Your task to perform on an android device: turn on sleep mode Image 0: 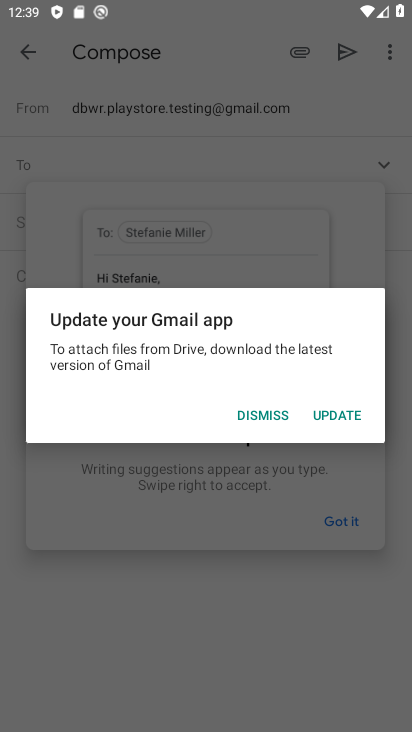
Step 0: press home button
Your task to perform on an android device: turn on sleep mode Image 1: 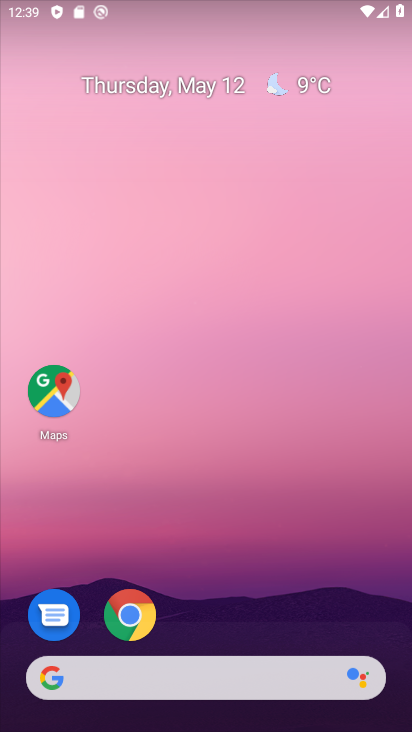
Step 1: drag from (218, 659) to (162, 24)
Your task to perform on an android device: turn on sleep mode Image 2: 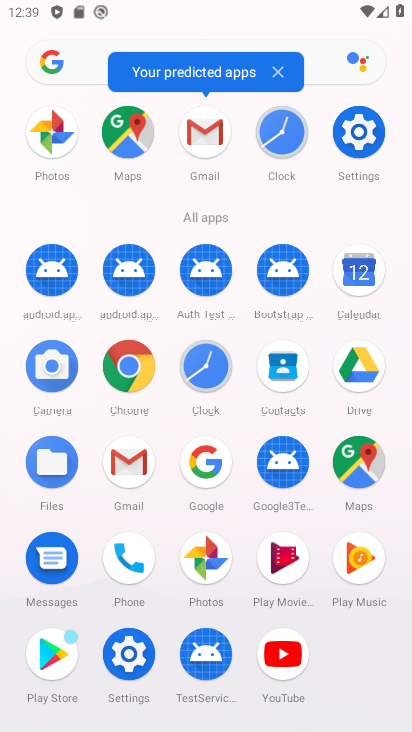
Step 2: click (208, 141)
Your task to perform on an android device: turn on sleep mode Image 3: 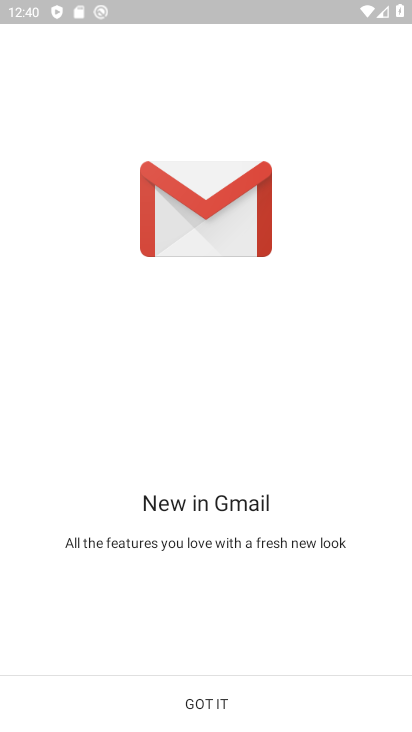
Step 3: press home button
Your task to perform on an android device: turn on sleep mode Image 4: 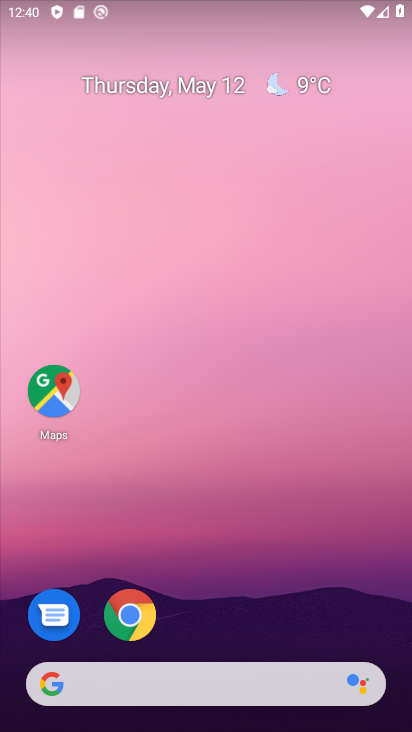
Step 4: drag from (283, 702) to (301, 180)
Your task to perform on an android device: turn on sleep mode Image 5: 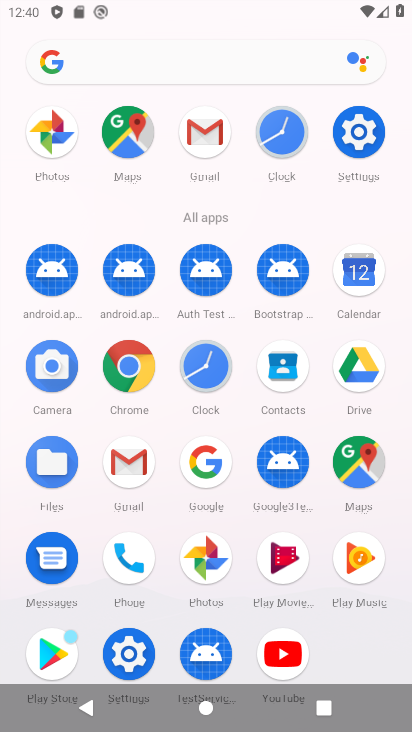
Step 5: click (350, 117)
Your task to perform on an android device: turn on sleep mode Image 6: 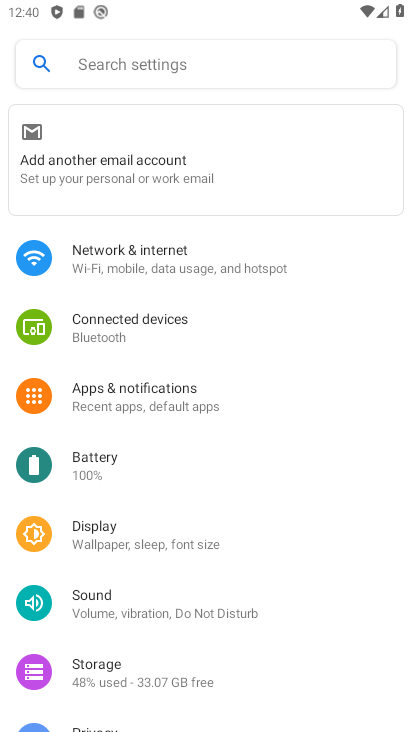
Step 6: click (163, 536)
Your task to perform on an android device: turn on sleep mode Image 7: 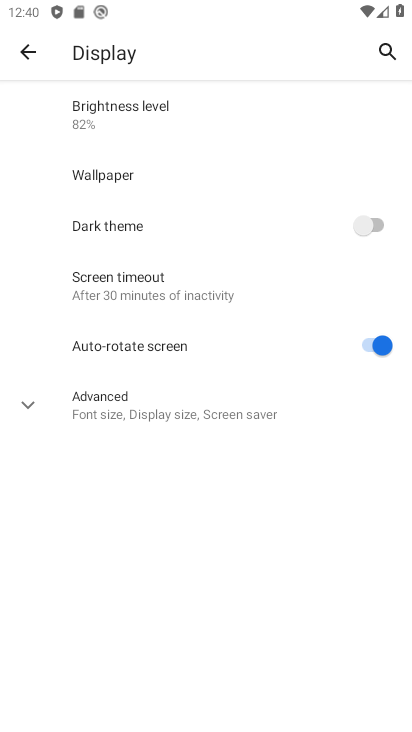
Step 7: task complete